Your task to perform on an android device: clear all cookies in the chrome app Image 0: 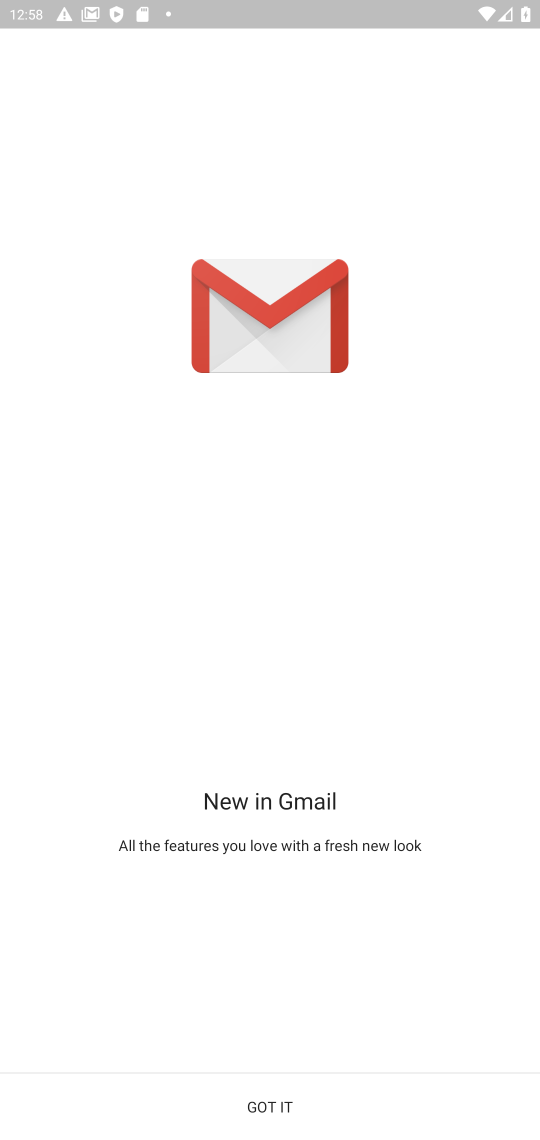
Step 0: press home button
Your task to perform on an android device: clear all cookies in the chrome app Image 1: 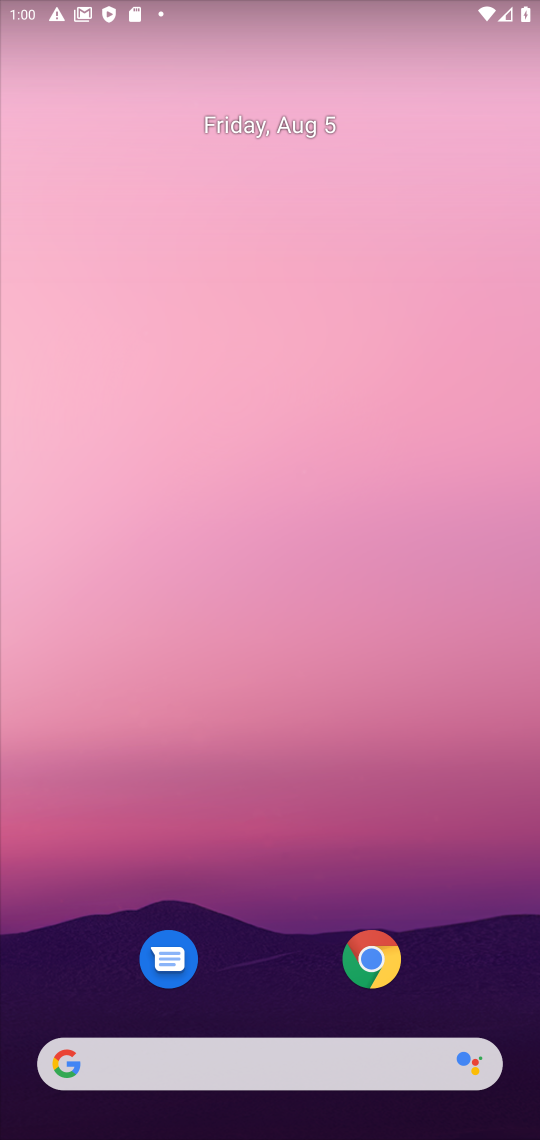
Step 1: click (397, 951)
Your task to perform on an android device: clear all cookies in the chrome app Image 2: 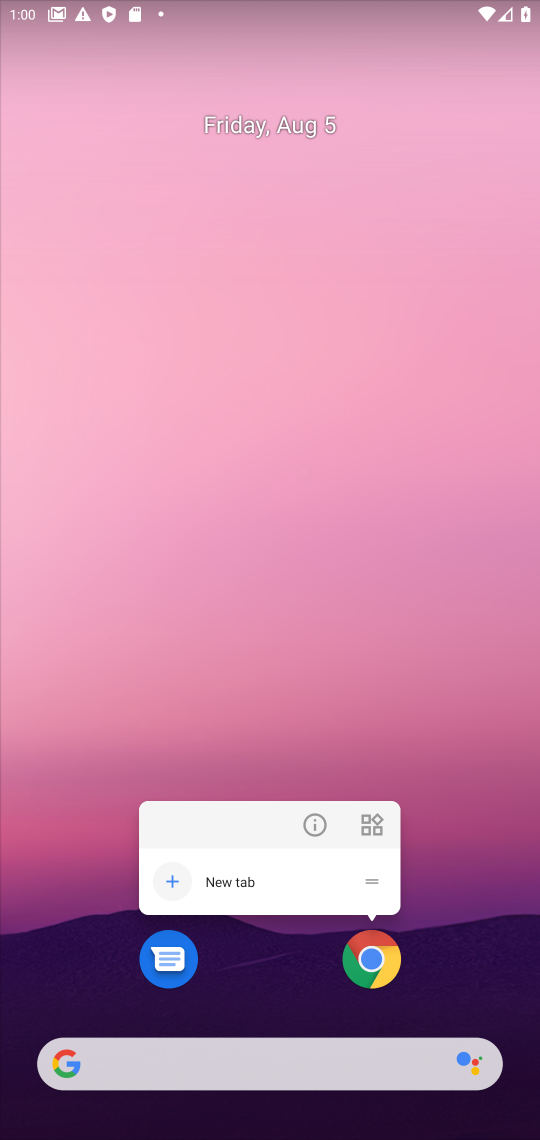
Step 2: click (395, 943)
Your task to perform on an android device: clear all cookies in the chrome app Image 3: 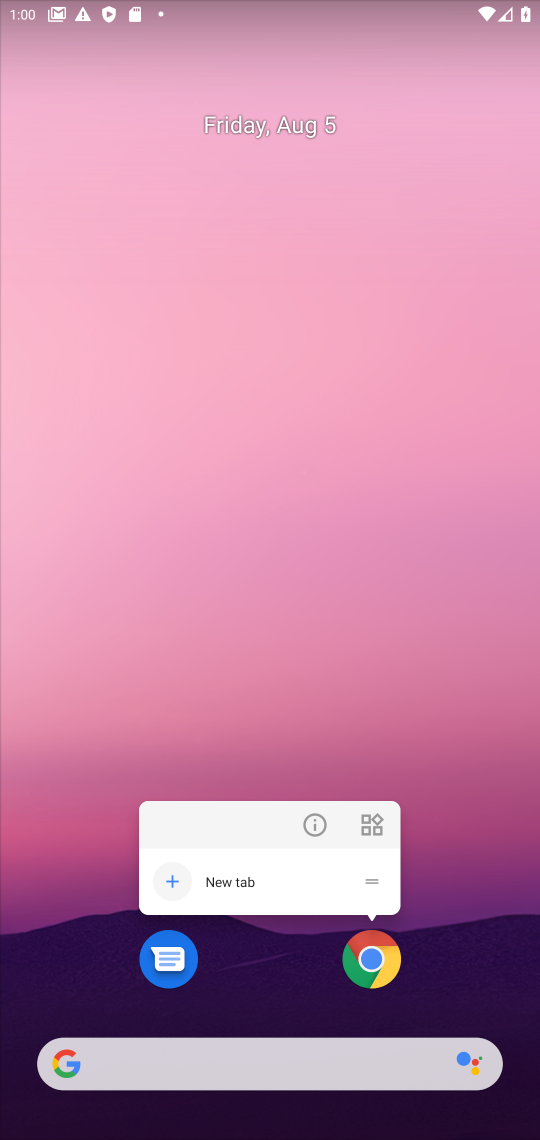
Step 3: click (372, 965)
Your task to perform on an android device: clear all cookies in the chrome app Image 4: 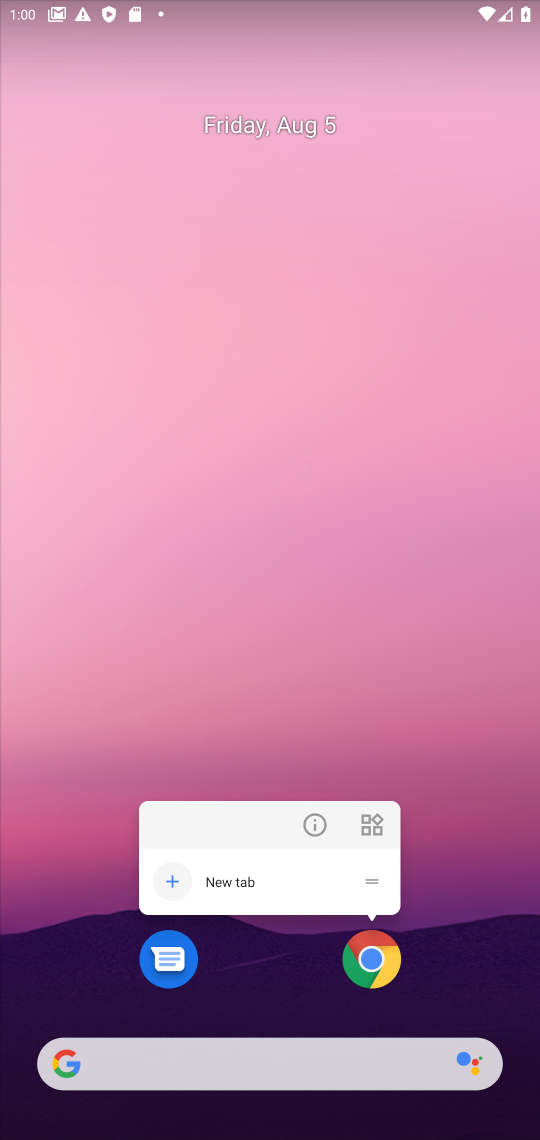
Step 4: click (380, 952)
Your task to perform on an android device: clear all cookies in the chrome app Image 5: 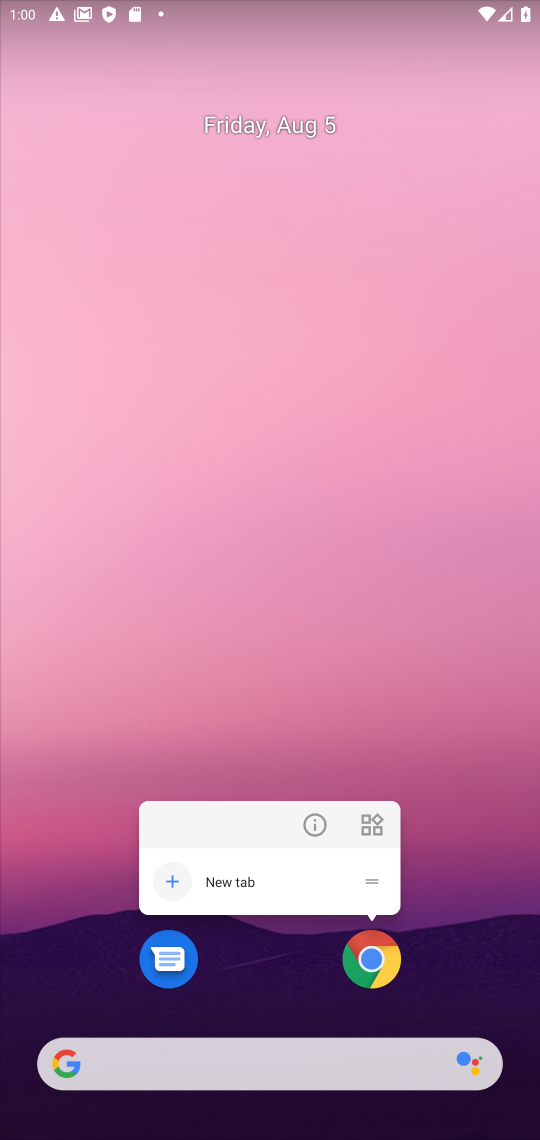
Step 5: click (380, 952)
Your task to perform on an android device: clear all cookies in the chrome app Image 6: 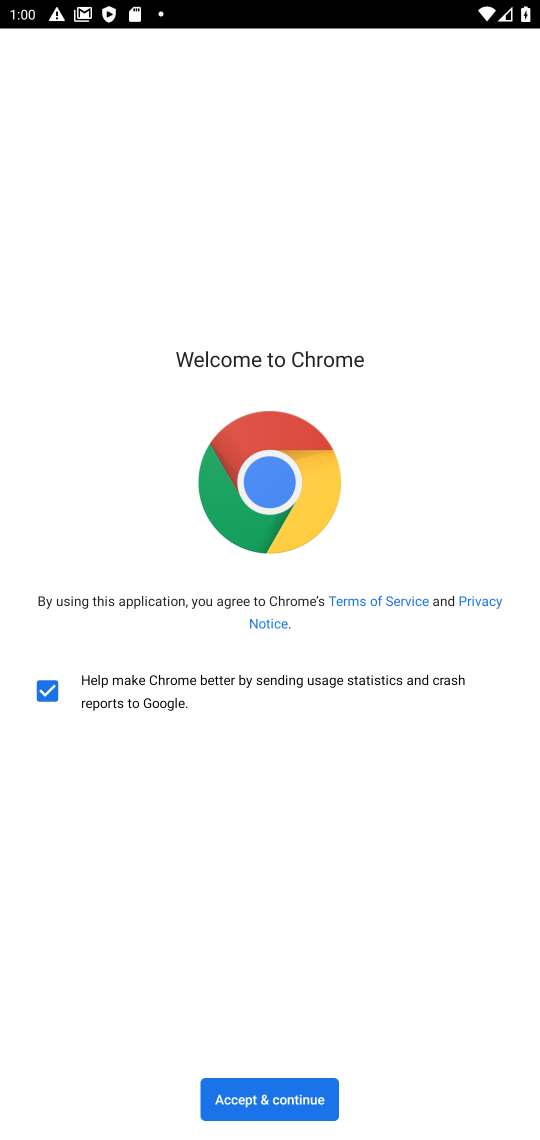
Step 6: click (284, 1074)
Your task to perform on an android device: clear all cookies in the chrome app Image 7: 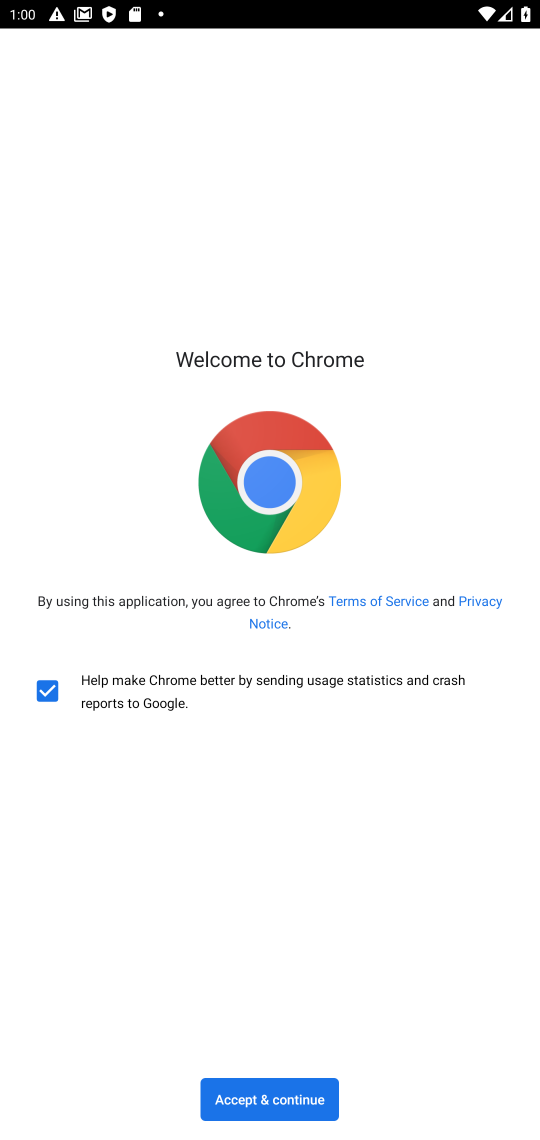
Step 7: click (263, 1111)
Your task to perform on an android device: clear all cookies in the chrome app Image 8: 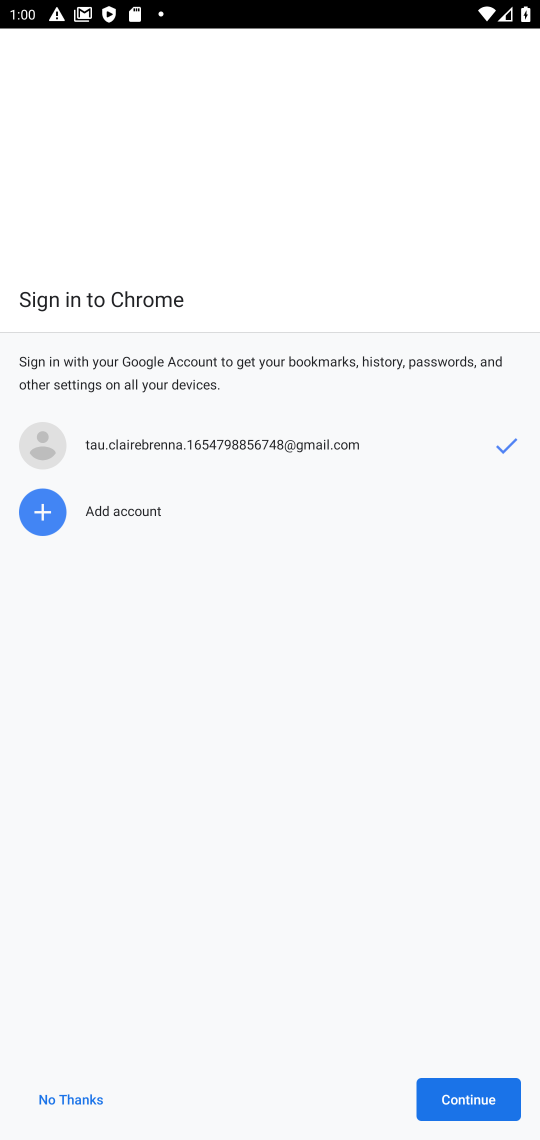
Step 8: click (444, 1105)
Your task to perform on an android device: clear all cookies in the chrome app Image 9: 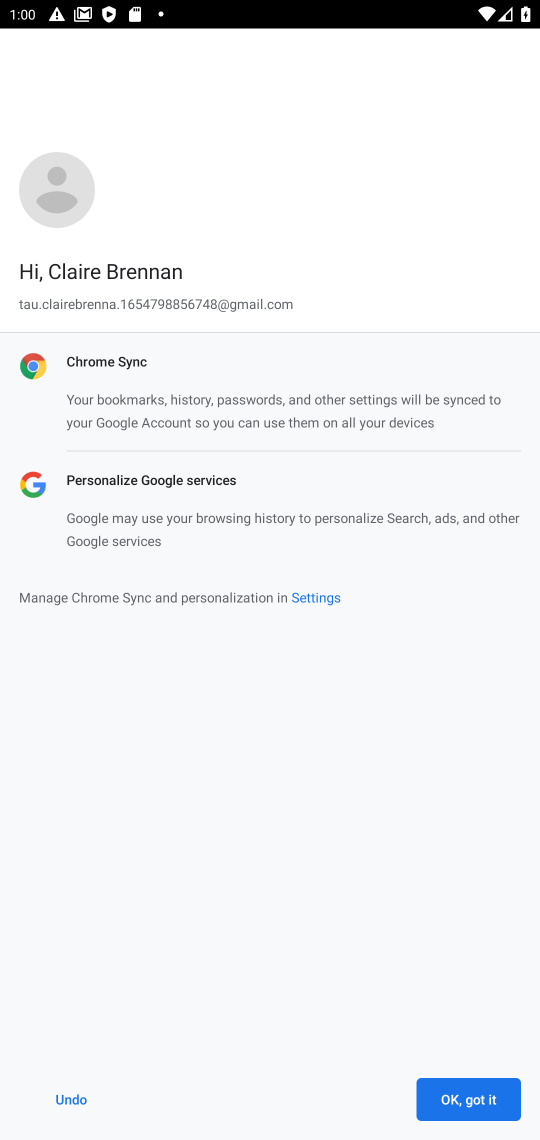
Step 9: click (444, 1105)
Your task to perform on an android device: clear all cookies in the chrome app Image 10: 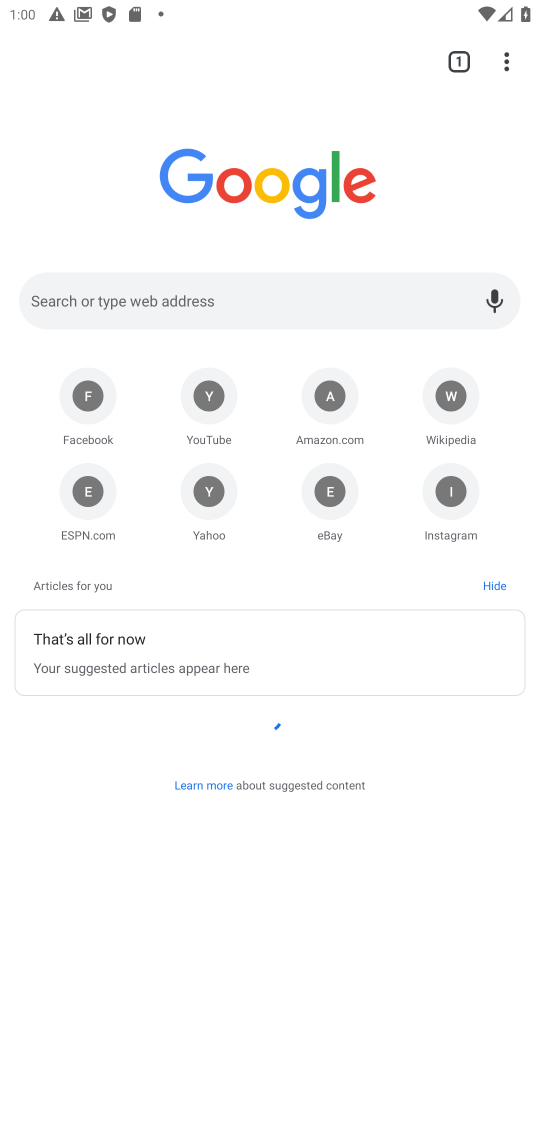
Step 10: click (519, 61)
Your task to perform on an android device: clear all cookies in the chrome app Image 11: 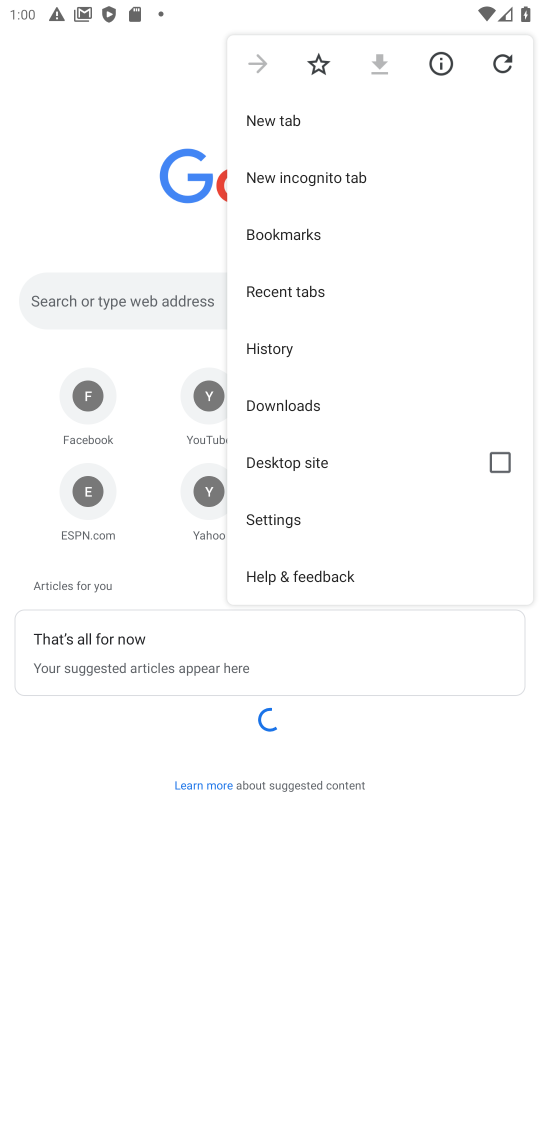
Step 11: click (315, 350)
Your task to perform on an android device: clear all cookies in the chrome app Image 12: 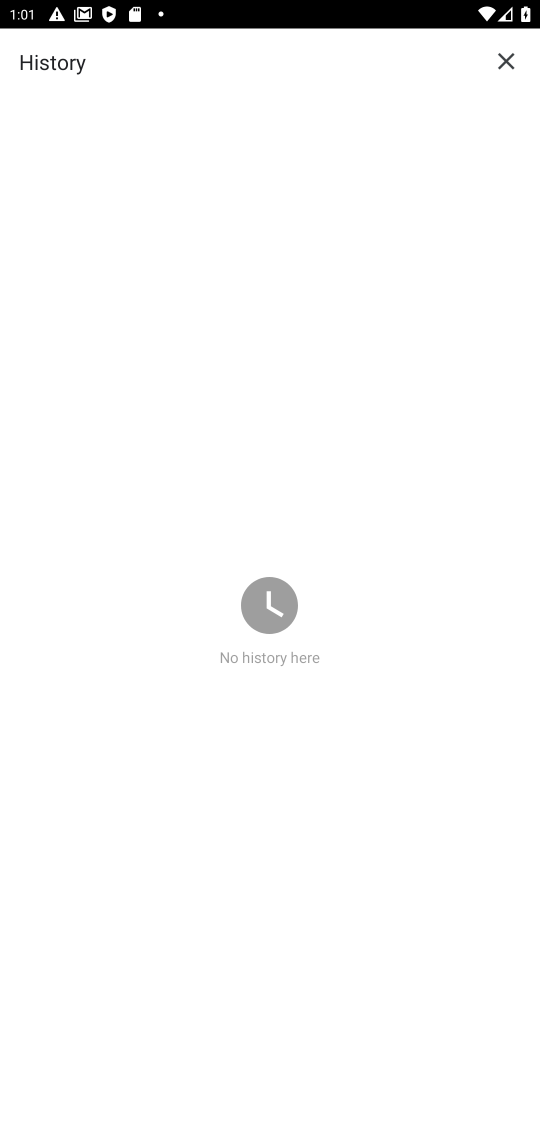
Step 12: task complete